Your task to perform on an android device: turn off sleep mode Image 0: 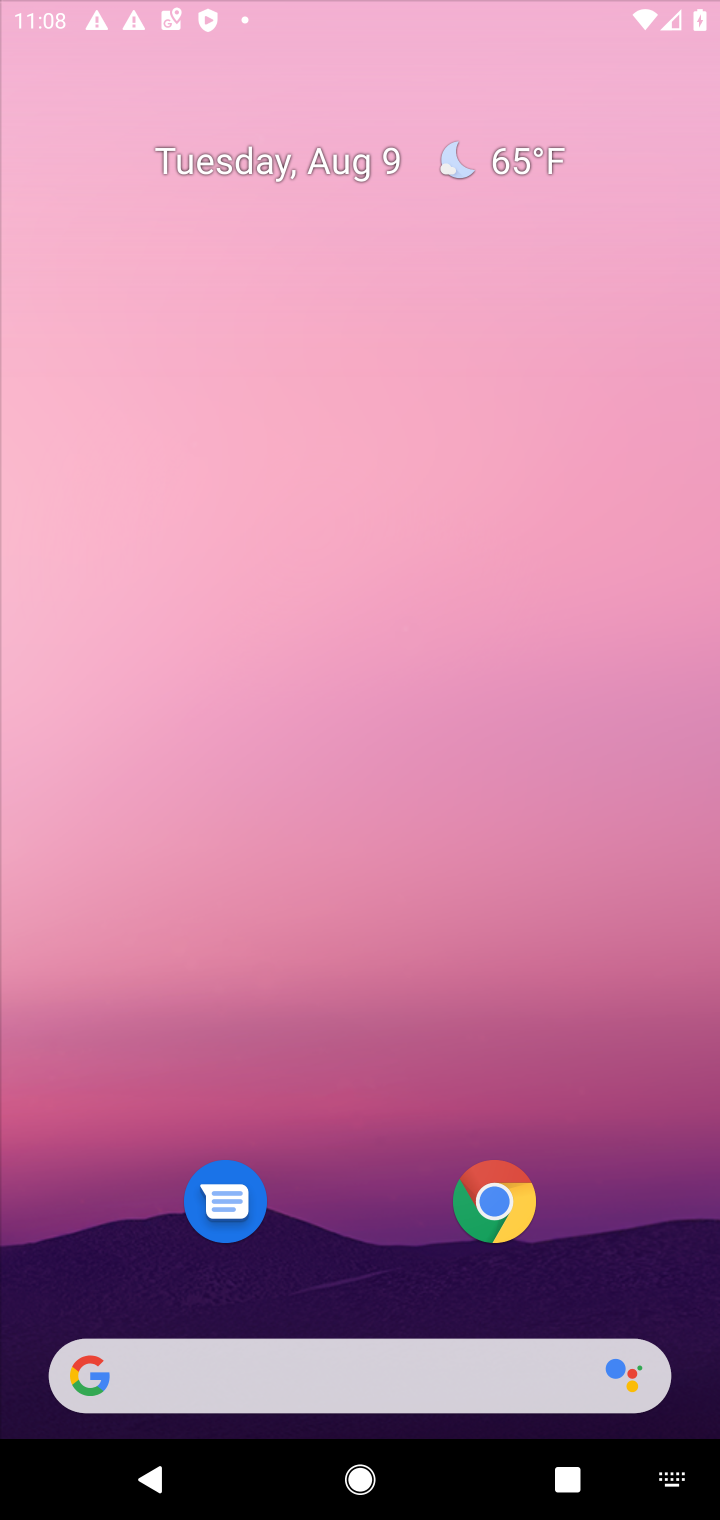
Step 0: press home button
Your task to perform on an android device: turn off sleep mode Image 1: 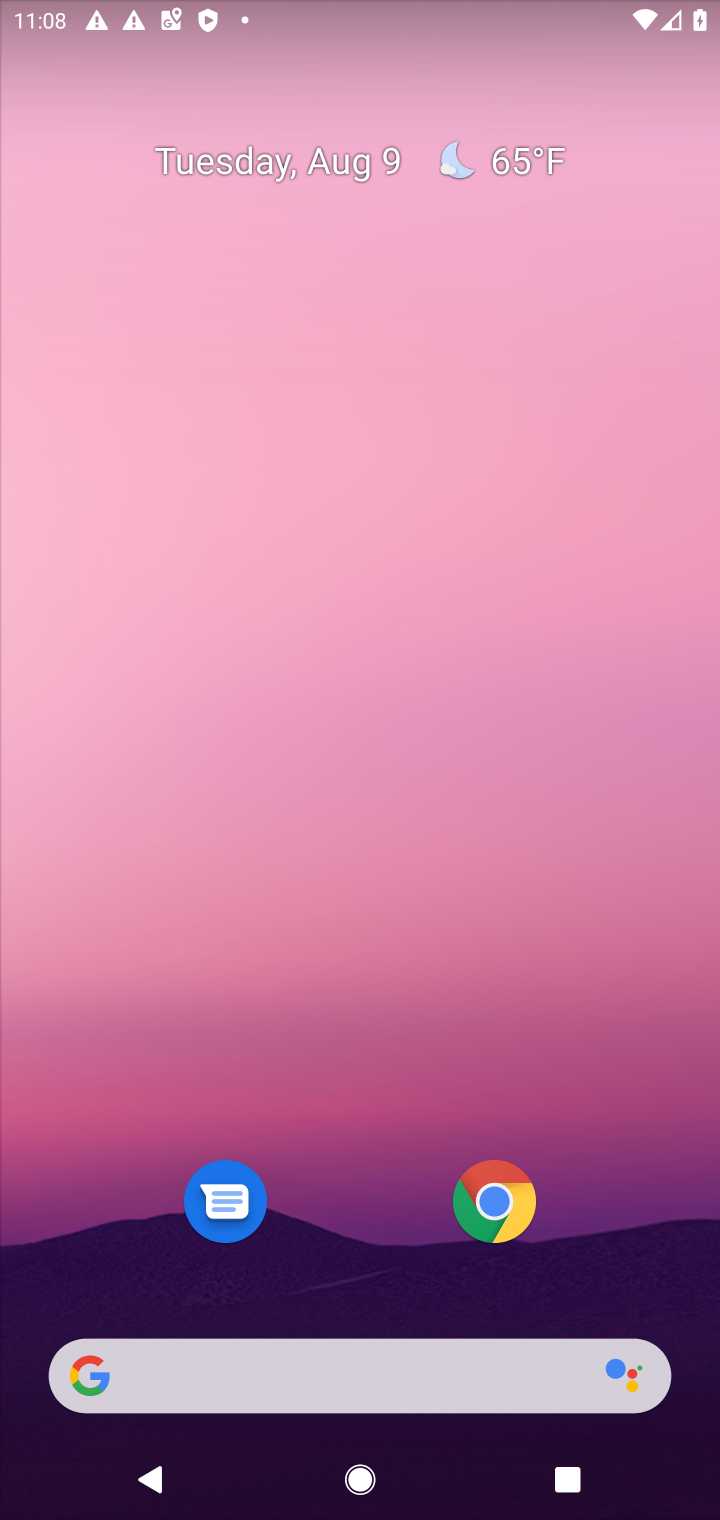
Step 1: drag from (362, 1220) to (430, 174)
Your task to perform on an android device: turn off sleep mode Image 2: 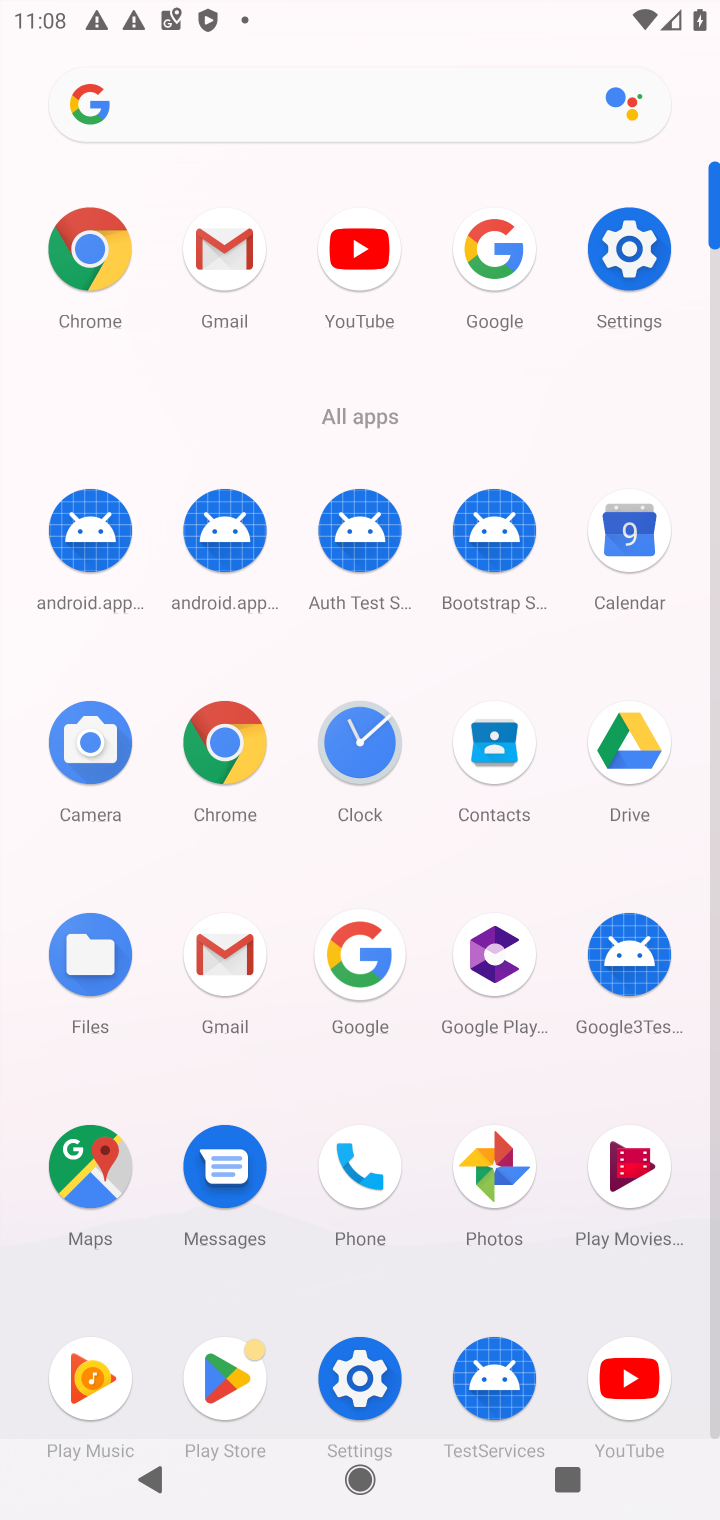
Step 2: click (648, 252)
Your task to perform on an android device: turn off sleep mode Image 3: 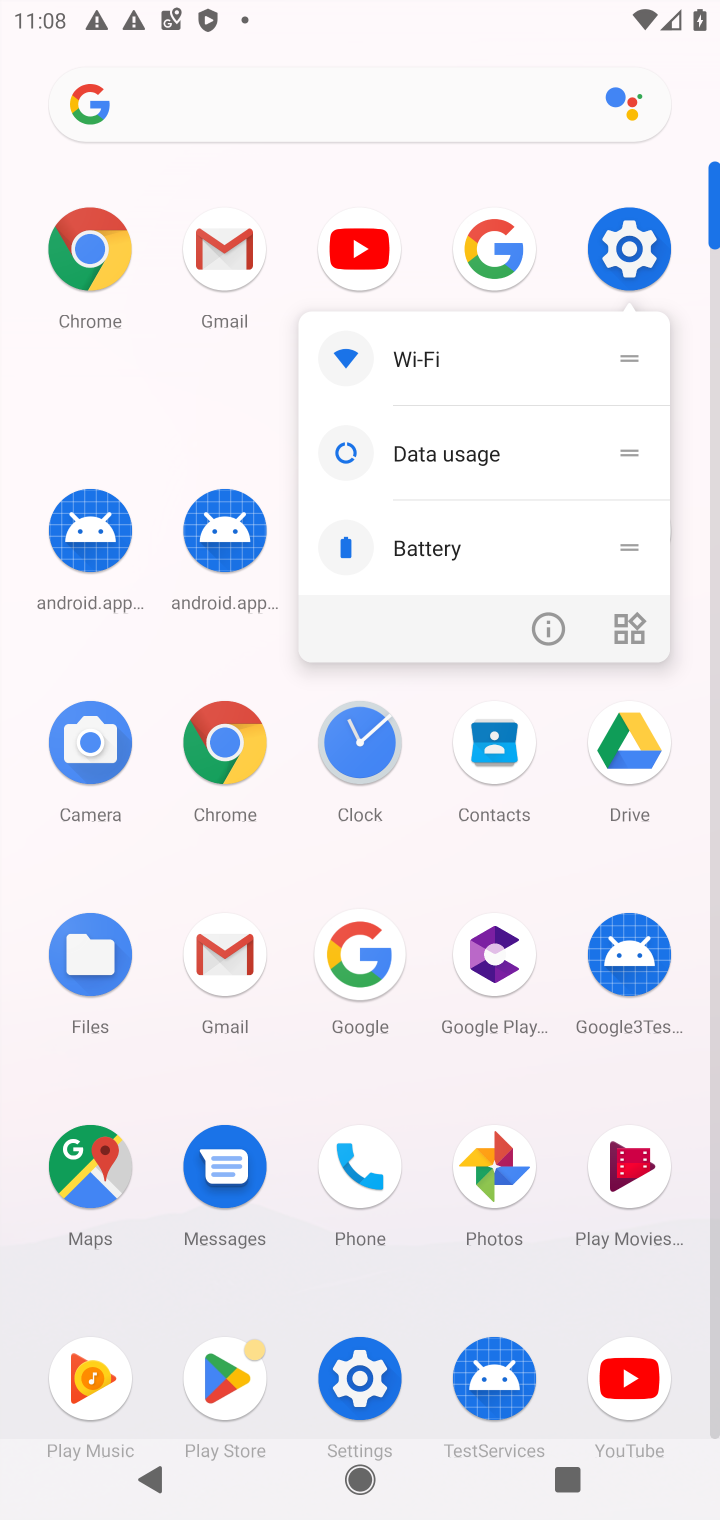
Step 3: click (643, 257)
Your task to perform on an android device: turn off sleep mode Image 4: 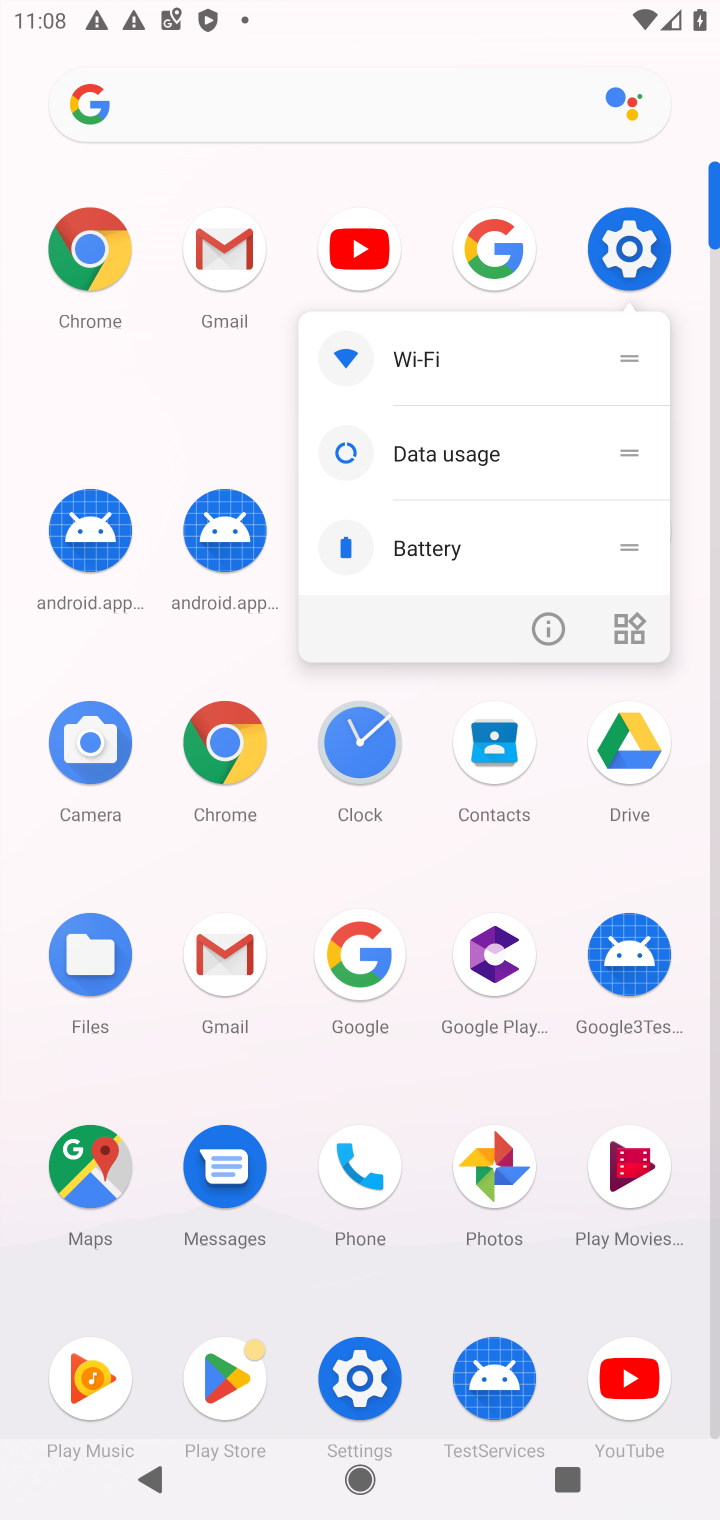
Step 4: click (629, 262)
Your task to perform on an android device: turn off sleep mode Image 5: 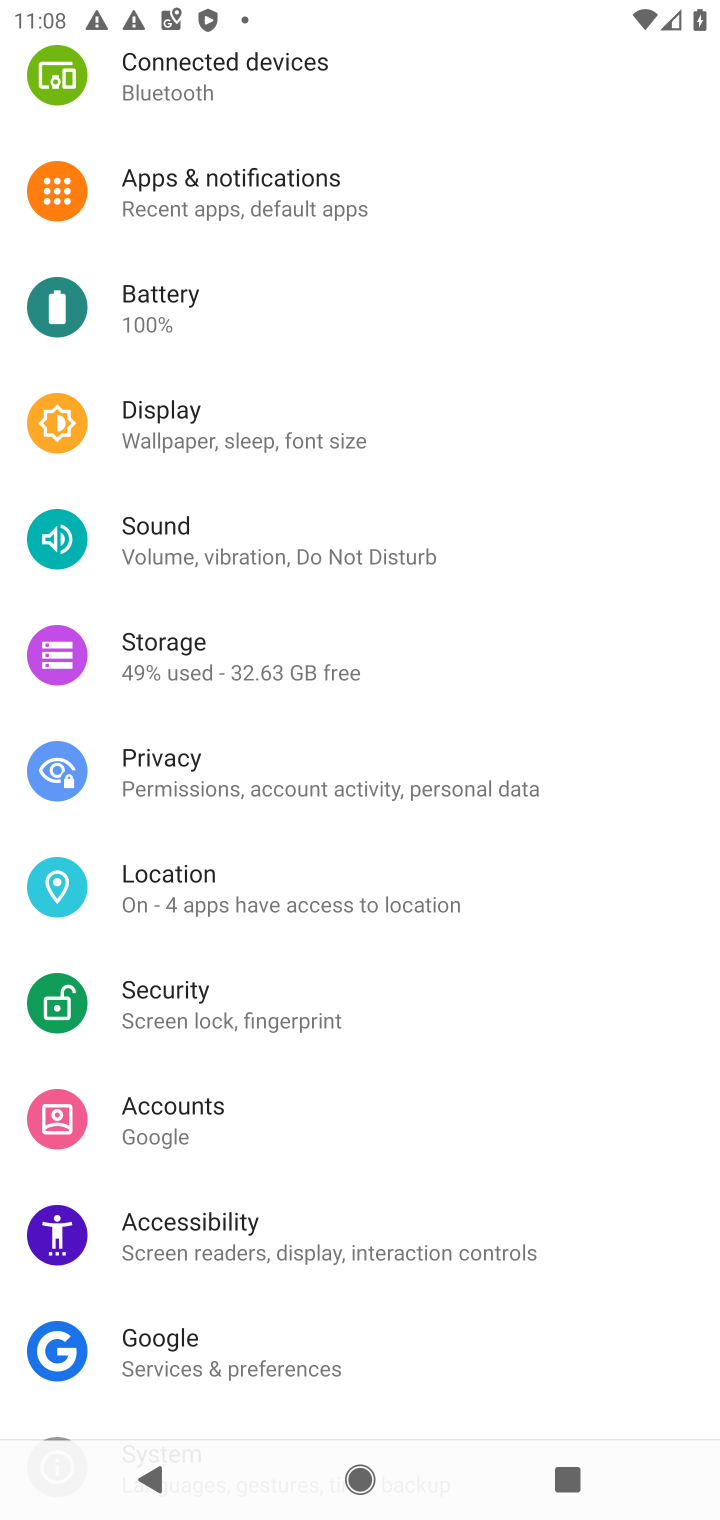
Step 5: click (168, 418)
Your task to perform on an android device: turn off sleep mode Image 6: 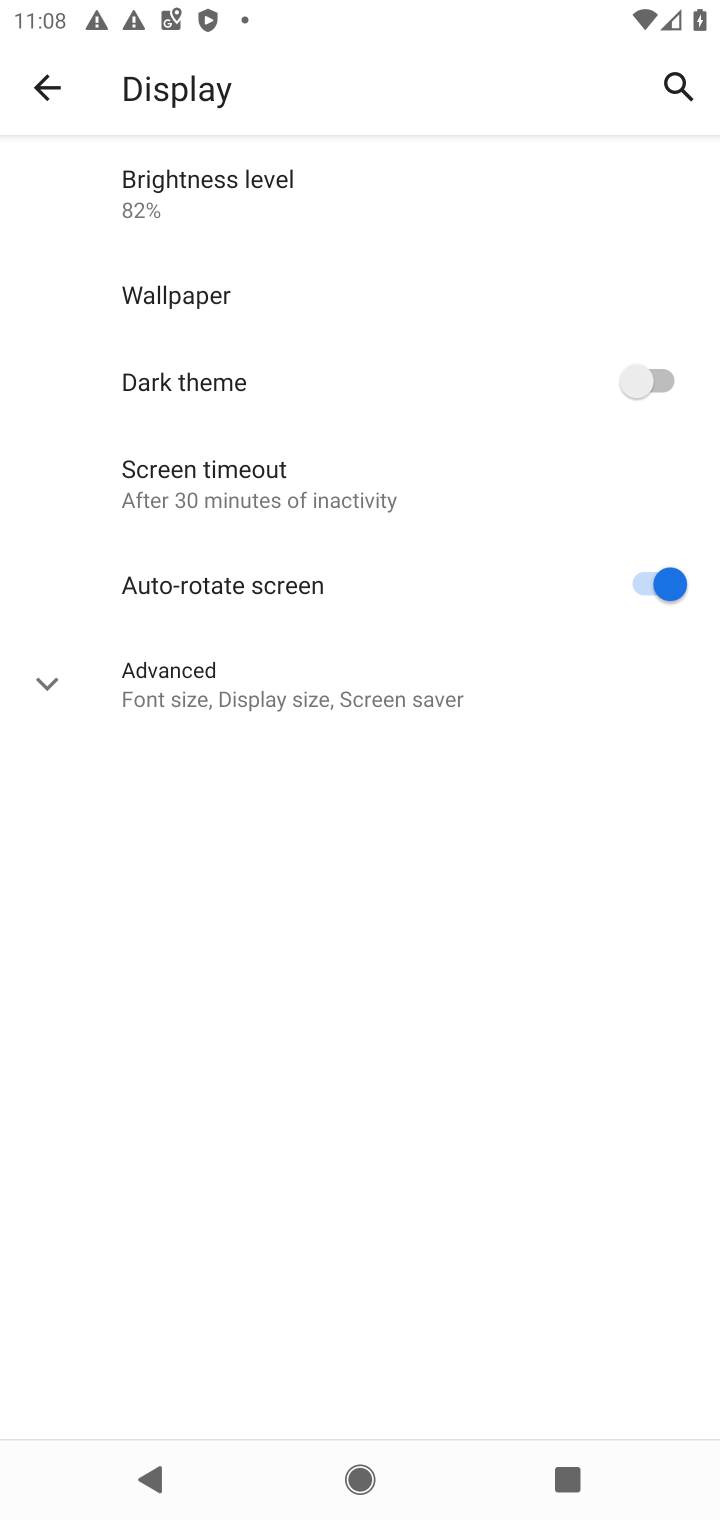
Step 6: click (57, 681)
Your task to perform on an android device: turn off sleep mode Image 7: 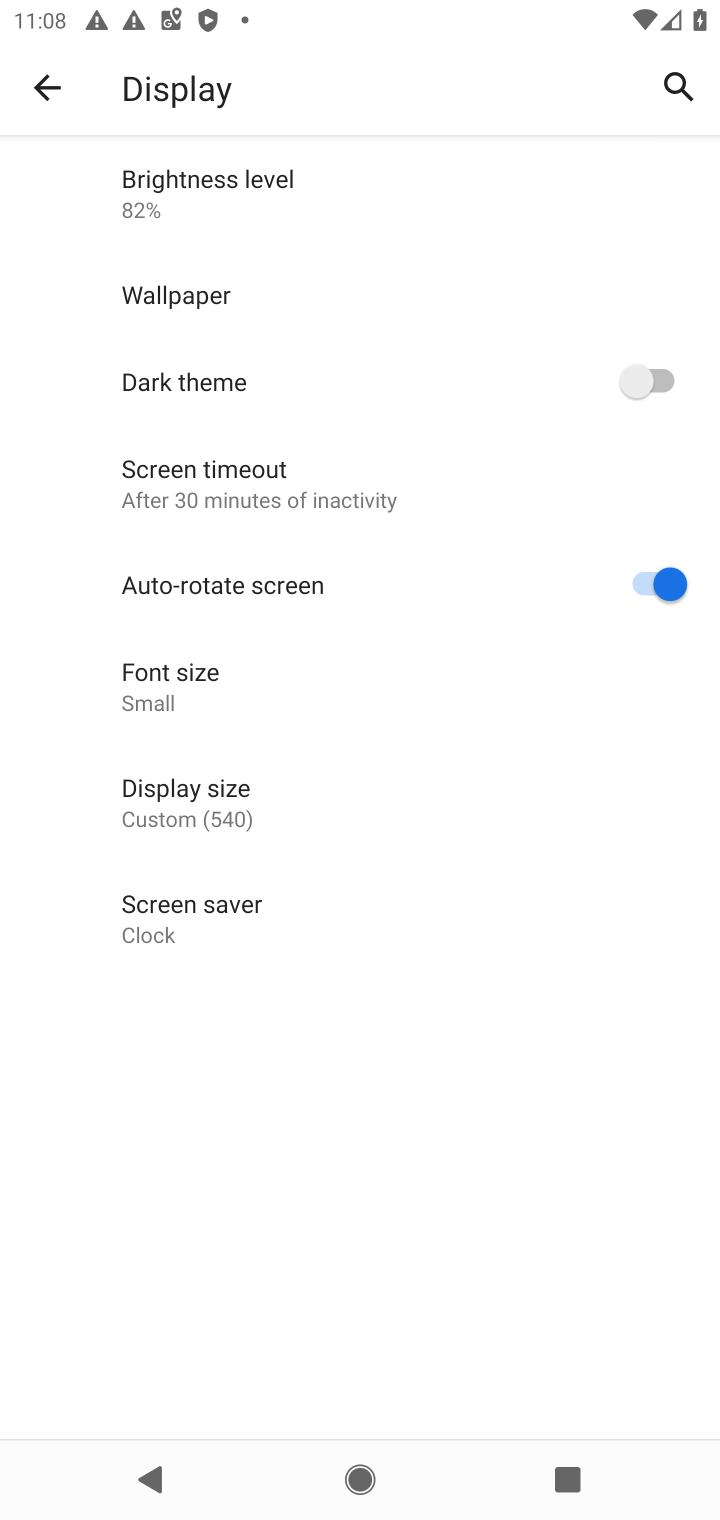
Step 7: task complete